Your task to perform on an android device: remove spam from my inbox in the gmail app Image 0: 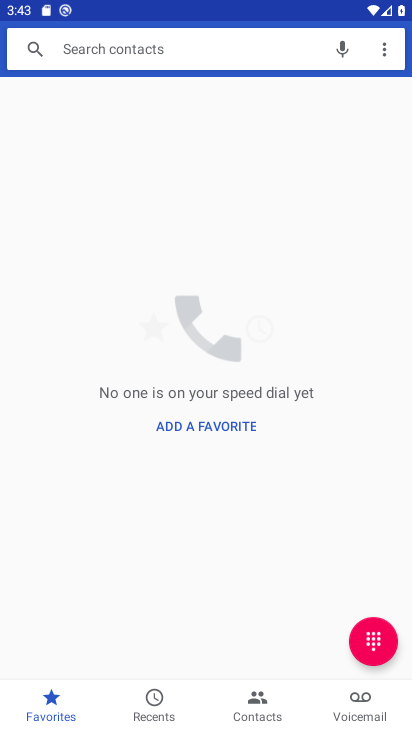
Step 0: press home button
Your task to perform on an android device: remove spam from my inbox in the gmail app Image 1: 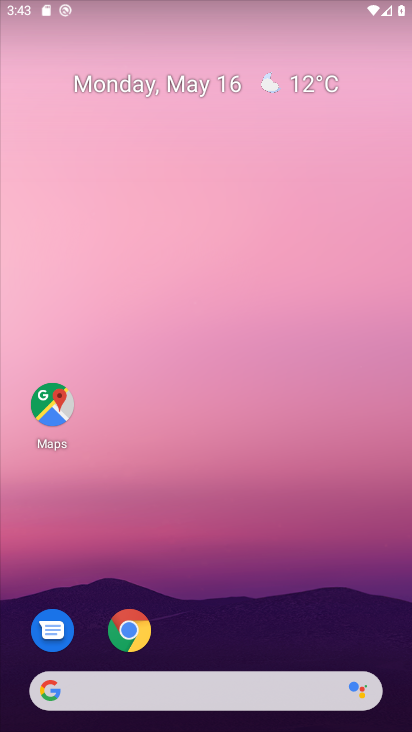
Step 1: drag from (199, 658) to (346, 139)
Your task to perform on an android device: remove spam from my inbox in the gmail app Image 2: 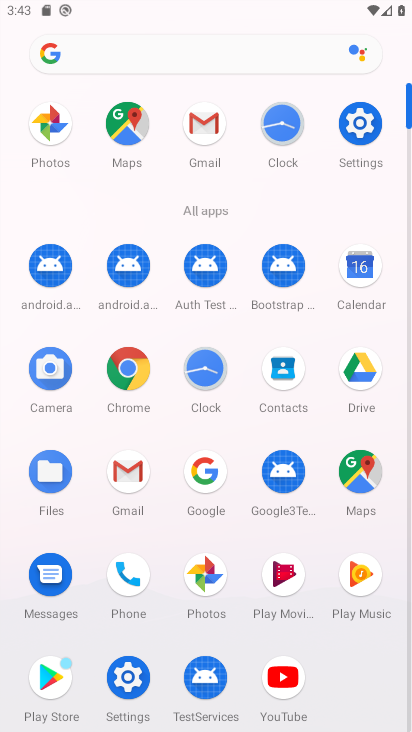
Step 2: click (127, 478)
Your task to perform on an android device: remove spam from my inbox in the gmail app Image 3: 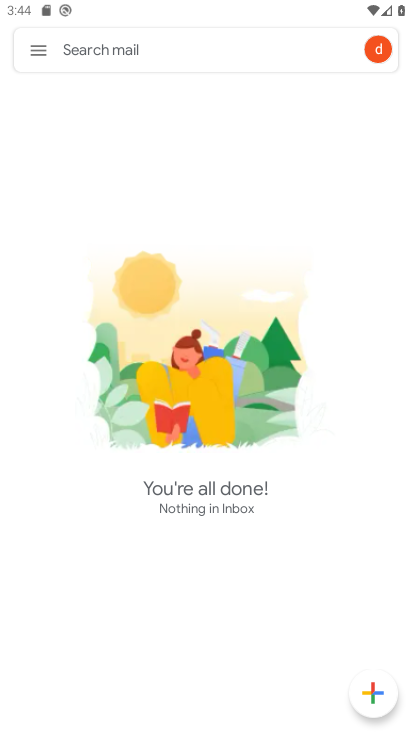
Step 3: click (48, 52)
Your task to perform on an android device: remove spam from my inbox in the gmail app Image 4: 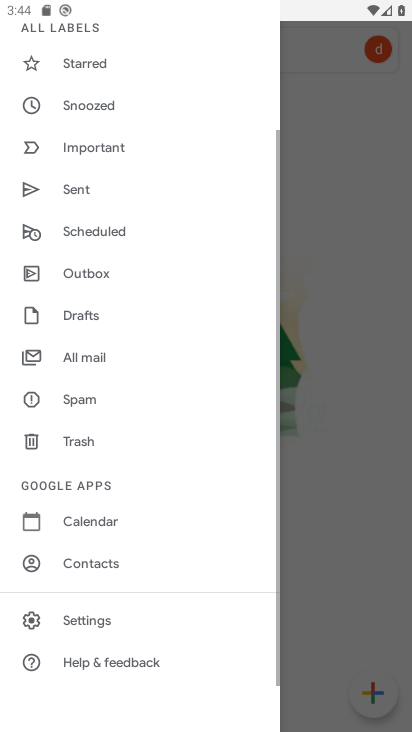
Step 4: click (127, 408)
Your task to perform on an android device: remove spam from my inbox in the gmail app Image 5: 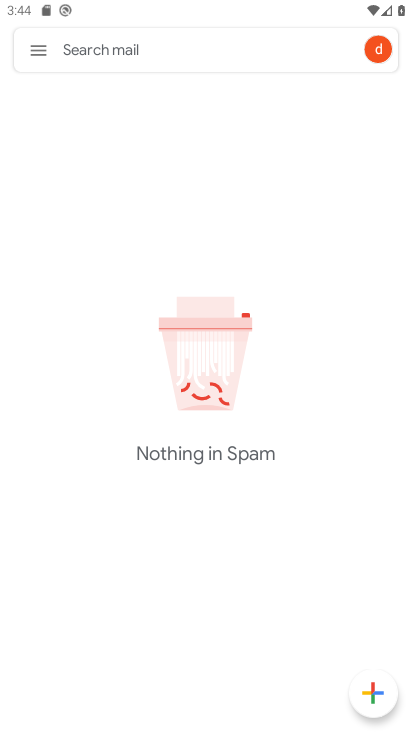
Step 5: task complete